Your task to perform on an android device: Show me the alarms in the clock app Image 0: 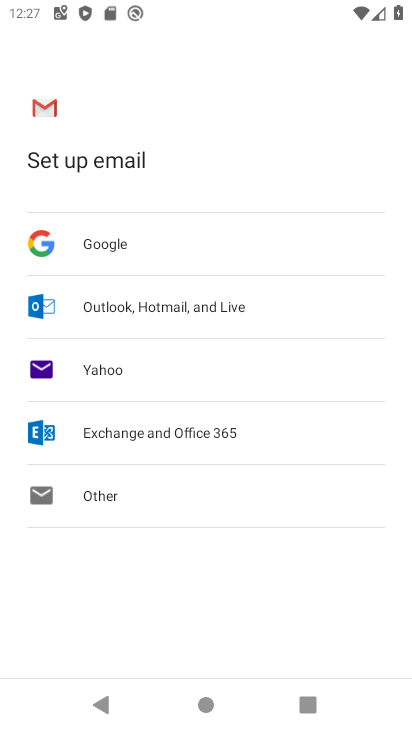
Step 0: press back button
Your task to perform on an android device: Show me the alarms in the clock app Image 1: 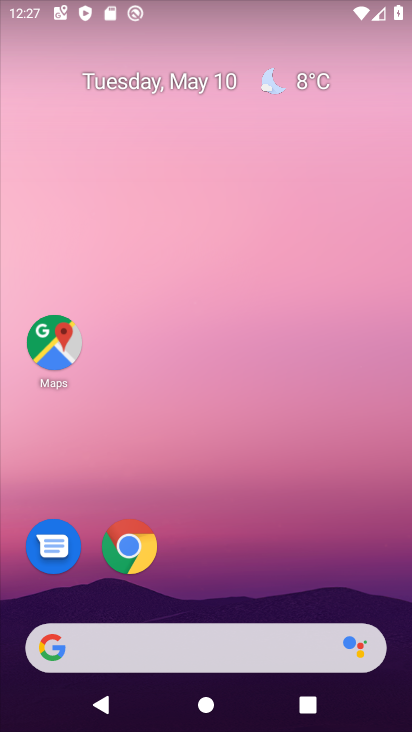
Step 1: drag from (251, 351) to (107, 67)
Your task to perform on an android device: Show me the alarms in the clock app Image 2: 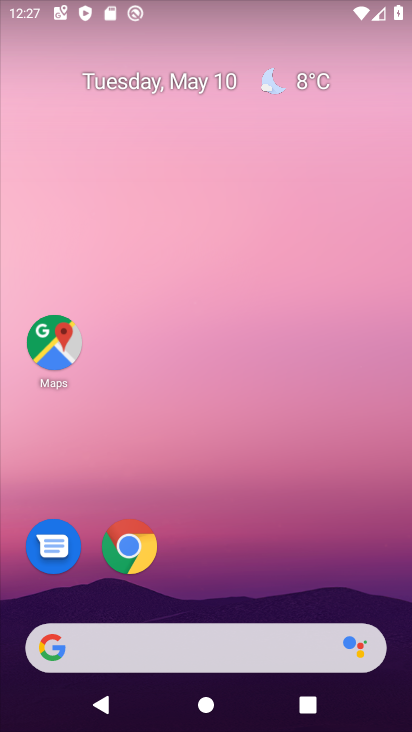
Step 2: drag from (336, 563) to (105, 0)
Your task to perform on an android device: Show me the alarms in the clock app Image 3: 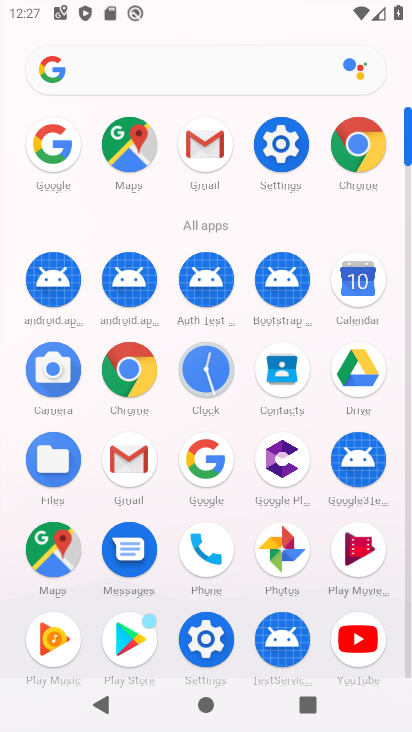
Step 3: click (200, 380)
Your task to perform on an android device: Show me the alarms in the clock app Image 4: 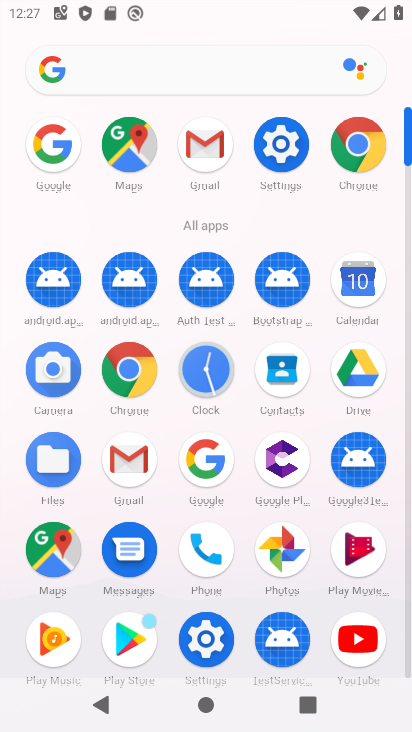
Step 4: click (200, 378)
Your task to perform on an android device: Show me the alarms in the clock app Image 5: 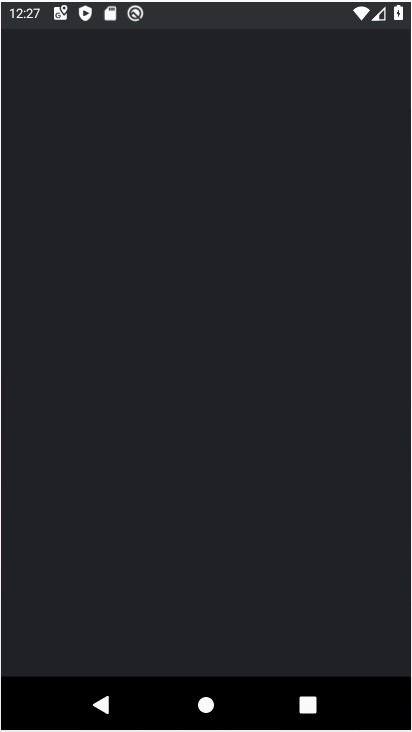
Step 5: click (203, 379)
Your task to perform on an android device: Show me the alarms in the clock app Image 6: 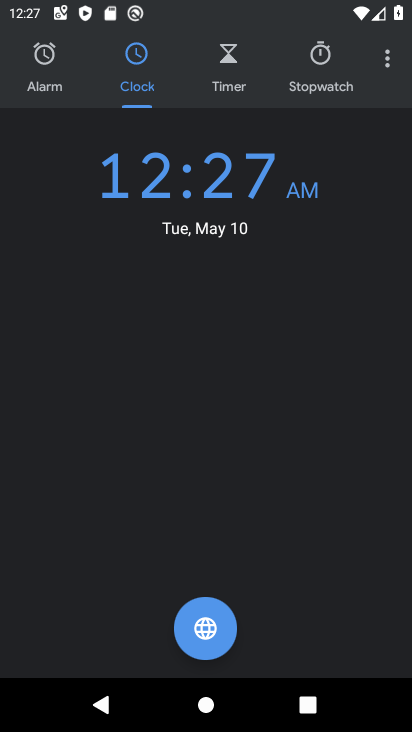
Step 6: click (201, 377)
Your task to perform on an android device: Show me the alarms in the clock app Image 7: 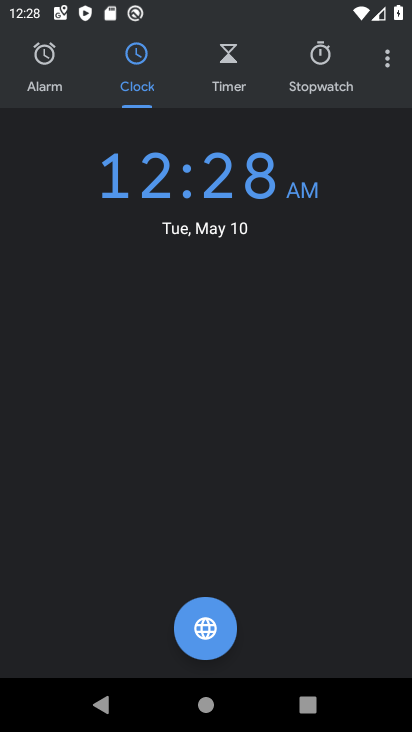
Step 7: click (48, 61)
Your task to perform on an android device: Show me the alarms in the clock app Image 8: 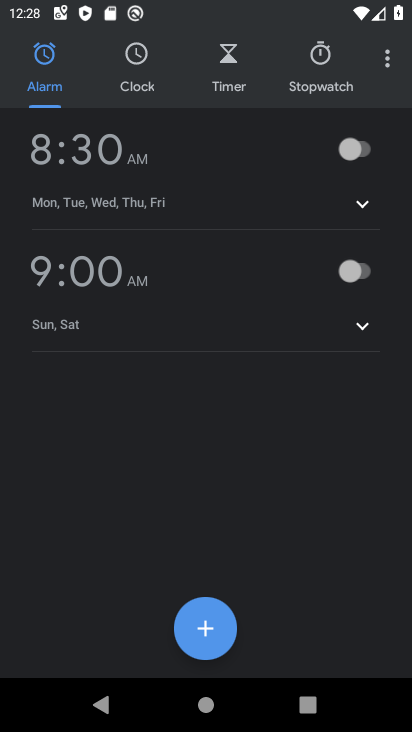
Step 8: click (349, 276)
Your task to perform on an android device: Show me the alarms in the clock app Image 9: 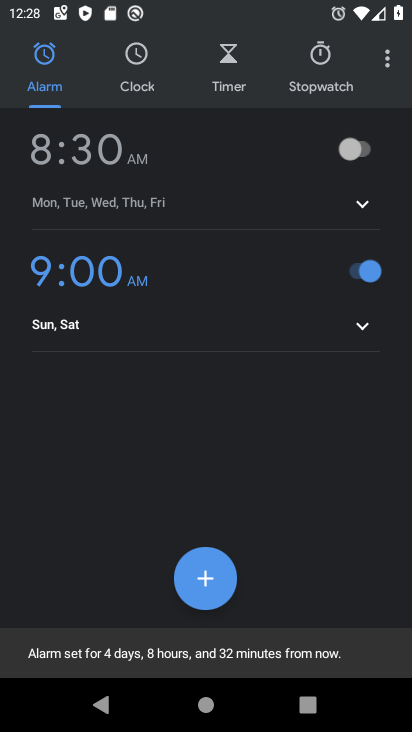
Step 9: click (353, 265)
Your task to perform on an android device: Show me the alarms in the clock app Image 10: 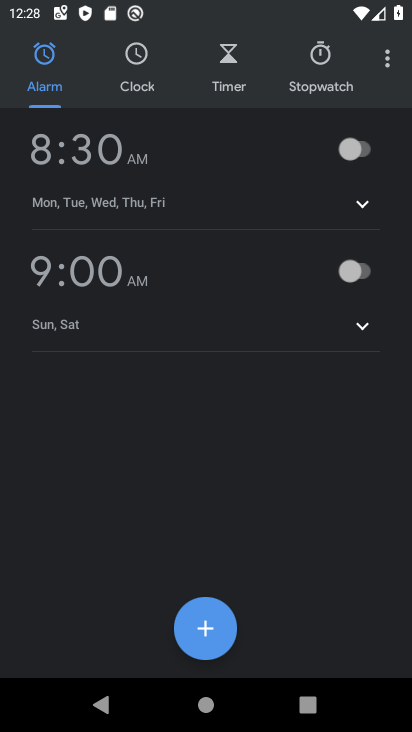
Step 10: click (346, 268)
Your task to perform on an android device: Show me the alarms in the clock app Image 11: 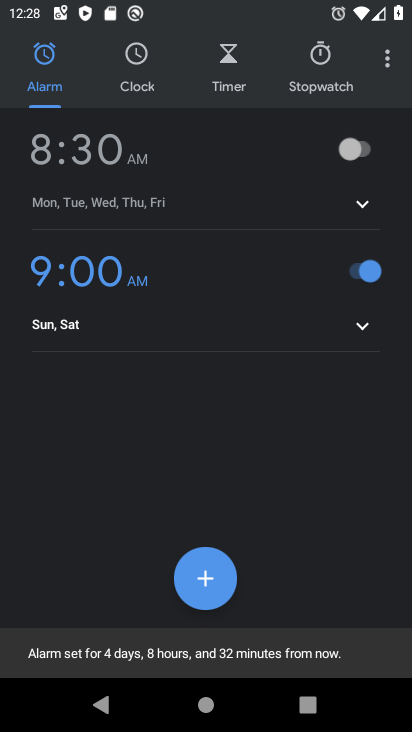
Step 11: task complete